Your task to perform on an android device: Go to internet settings Image 0: 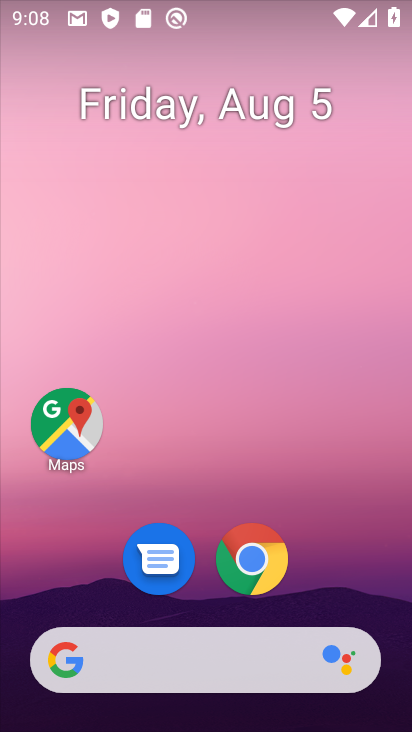
Step 0: drag from (216, 552) to (186, 241)
Your task to perform on an android device: Go to internet settings Image 1: 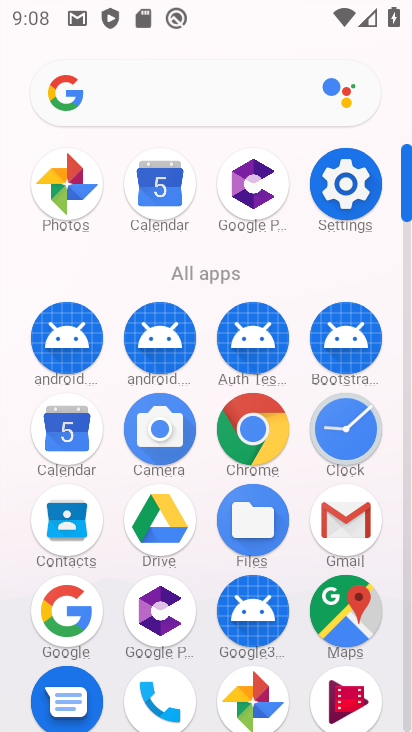
Step 1: click (335, 224)
Your task to perform on an android device: Go to internet settings Image 2: 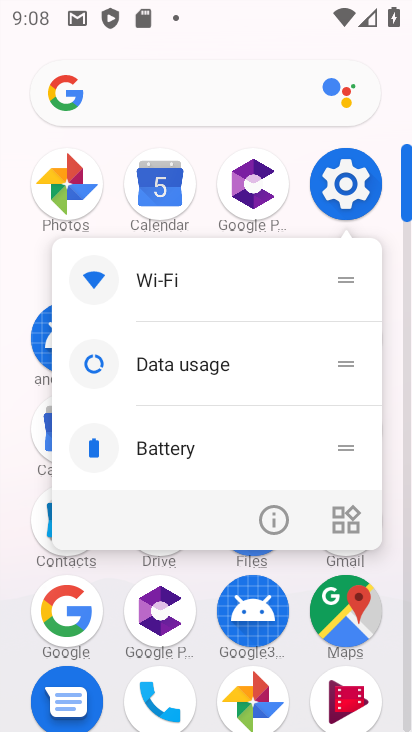
Step 2: click (364, 181)
Your task to perform on an android device: Go to internet settings Image 3: 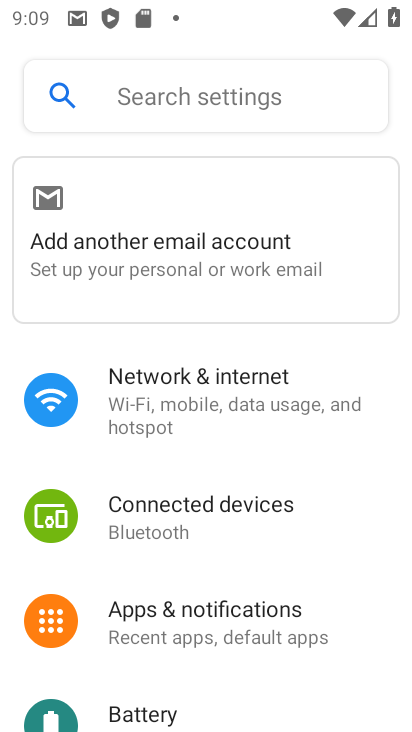
Step 3: click (194, 404)
Your task to perform on an android device: Go to internet settings Image 4: 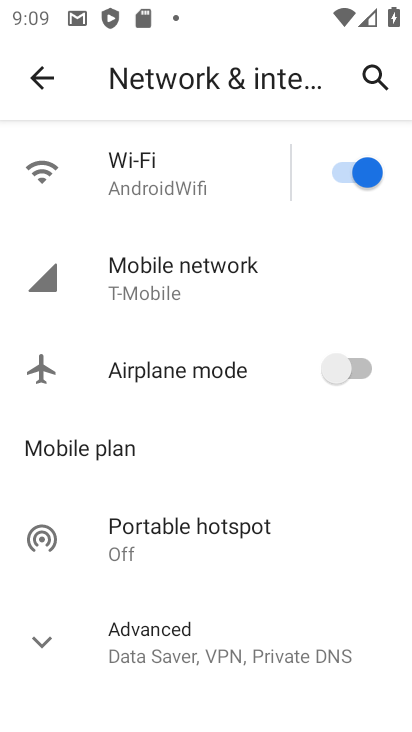
Step 4: click (184, 270)
Your task to perform on an android device: Go to internet settings Image 5: 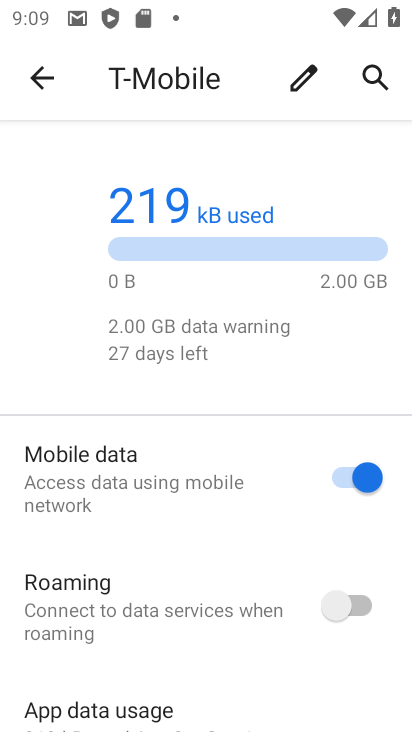
Step 5: task complete